Your task to perform on an android device: What is the news today? Image 0: 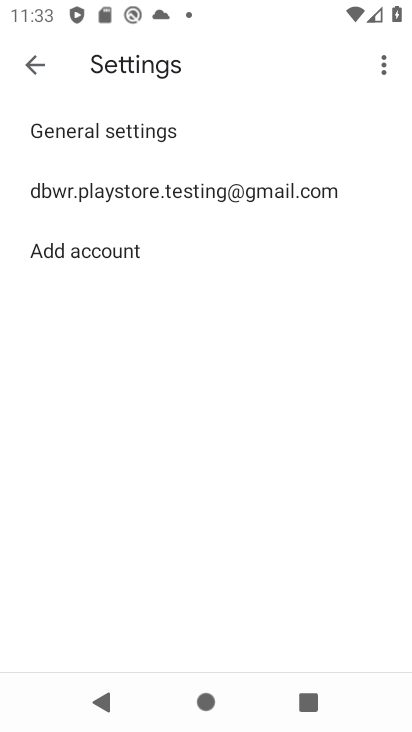
Step 0: drag from (260, 637) to (200, 105)
Your task to perform on an android device: What is the news today? Image 1: 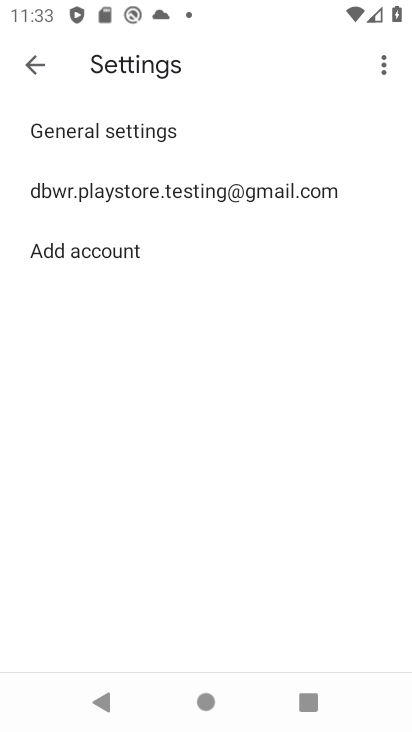
Step 1: click (16, 62)
Your task to perform on an android device: What is the news today? Image 2: 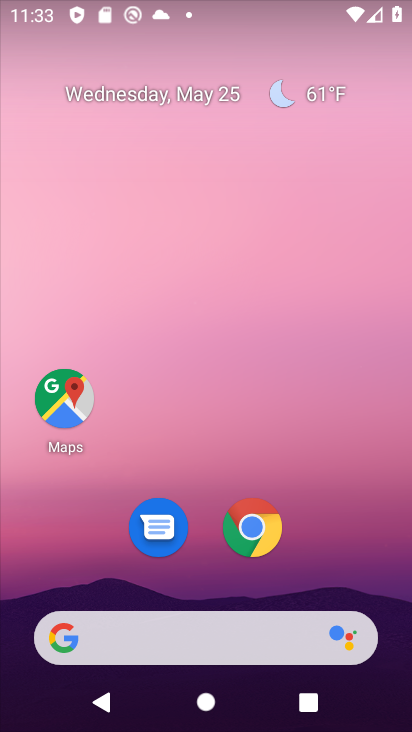
Step 2: drag from (258, 489) to (213, 147)
Your task to perform on an android device: What is the news today? Image 3: 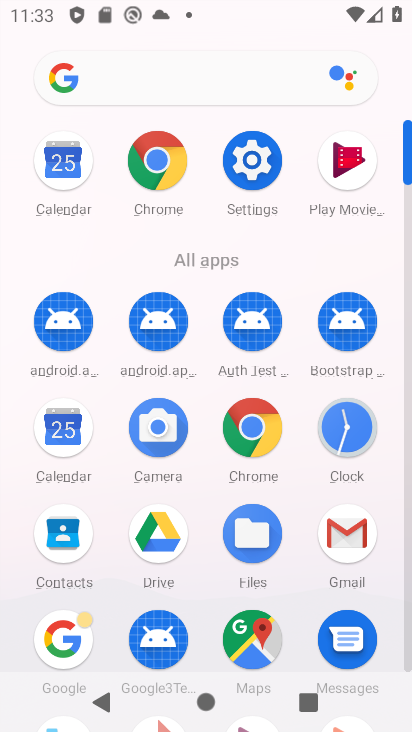
Step 3: press back button
Your task to perform on an android device: What is the news today? Image 4: 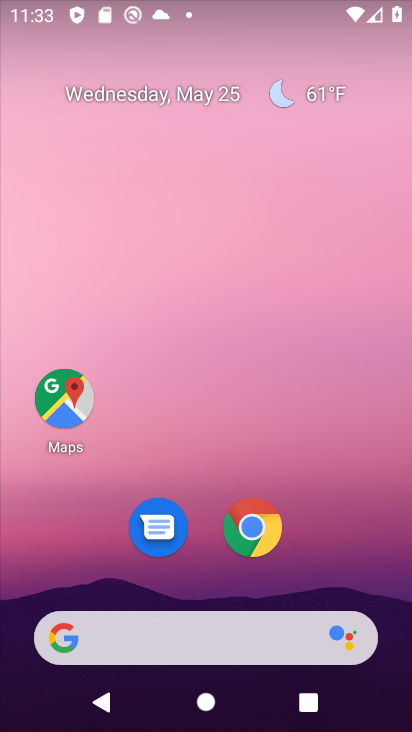
Step 4: drag from (3, 209) to (410, 408)
Your task to perform on an android device: What is the news today? Image 5: 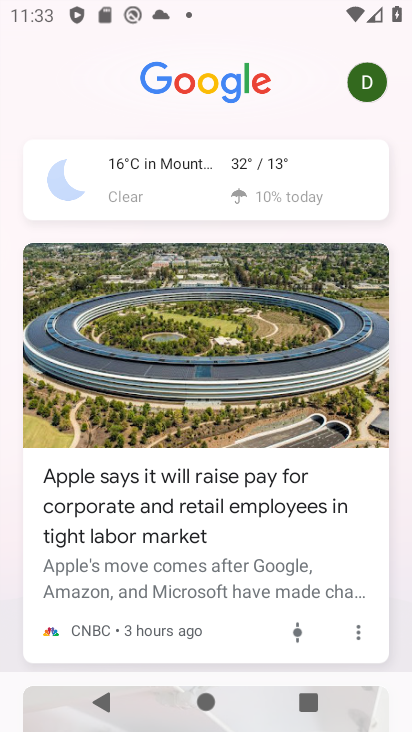
Step 5: click (126, 254)
Your task to perform on an android device: What is the news today? Image 6: 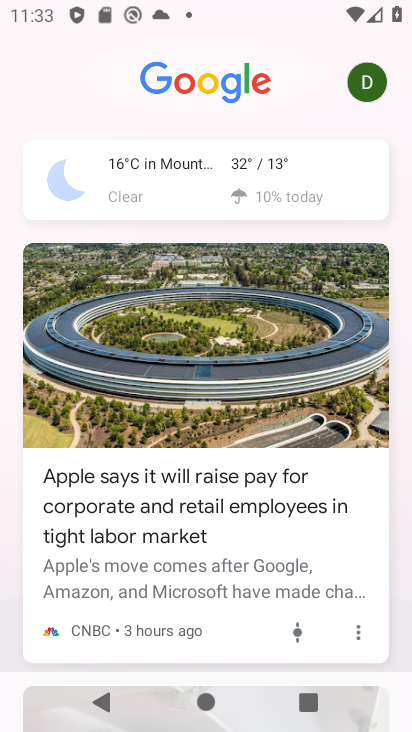
Step 6: drag from (137, 483) to (161, 274)
Your task to perform on an android device: What is the news today? Image 7: 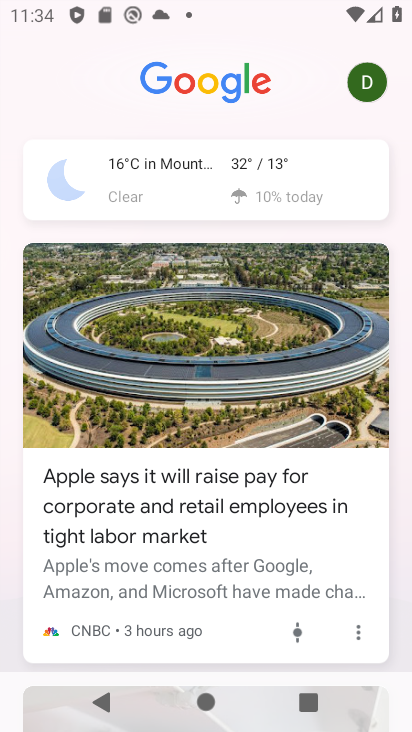
Step 7: drag from (194, 484) to (197, 123)
Your task to perform on an android device: What is the news today? Image 8: 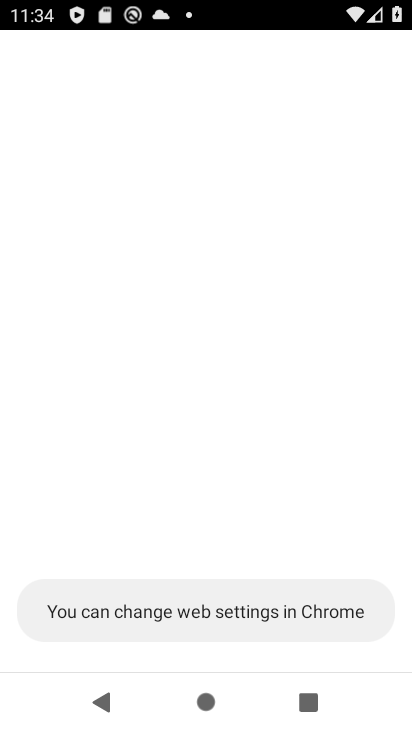
Step 8: click (255, 146)
Your task to perform on an android device: What is the news today? Image 9: 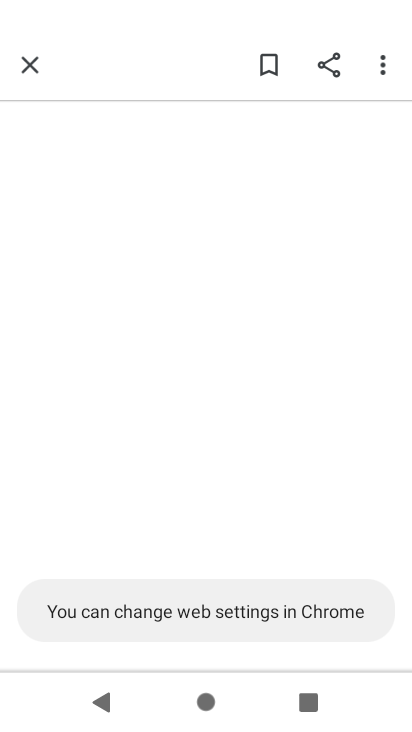
Step 9: task complete